Your task to perform on an android device: Open Youtube and go to the subscriptions tab Image 0: 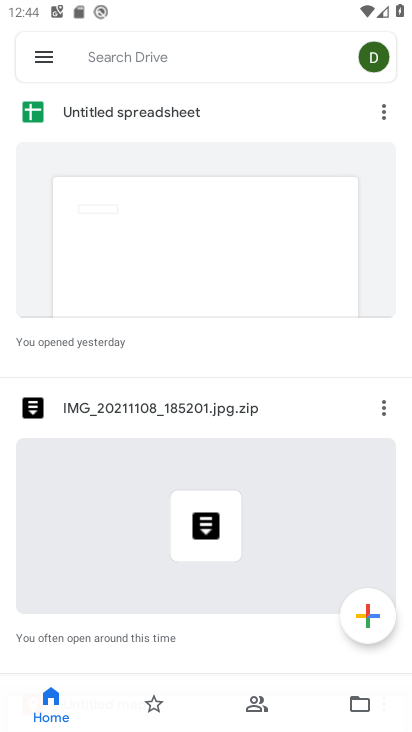
Step 0: press home button
Your task to perform on an android device: Open Youtube and go to the subscriptions tab Image 1: 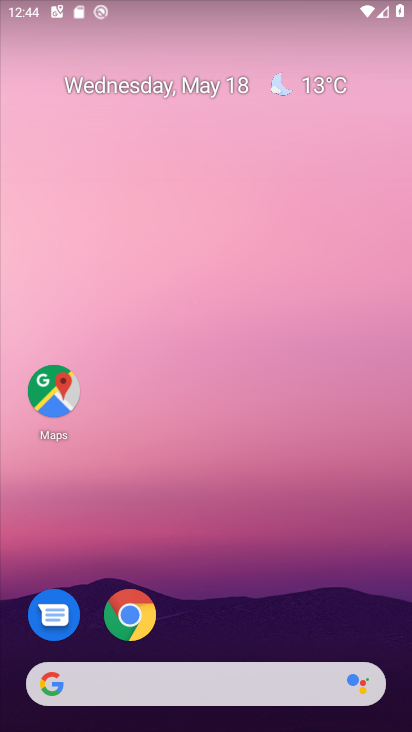
Step 1: drag from (398, 667) to (385, 240)
Your task to perform on an android device: Open Youtube and go to the subscriptions tab Image 2: 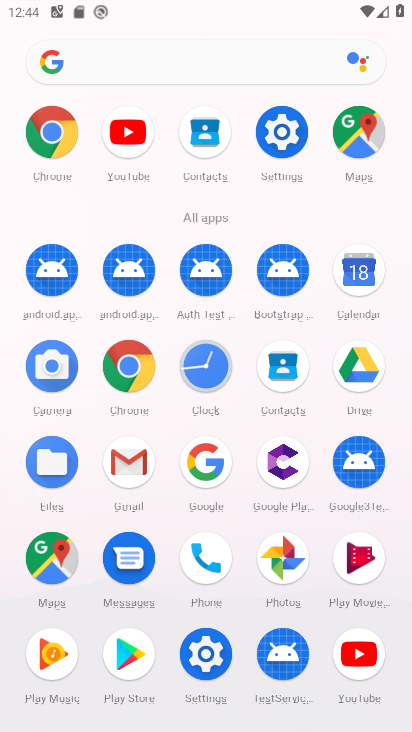
Step 2: click (347, 649)
Your task to perform on an android device: Open Youtube and go to the subscriptions tab Image 3: 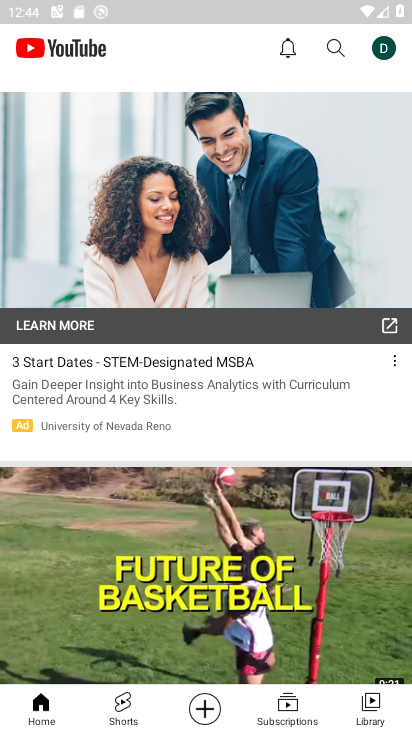
Step 3: click (289, 702)
Your task to perform on an android device: Open Youtube and go to the subscriptions tab Image 4: 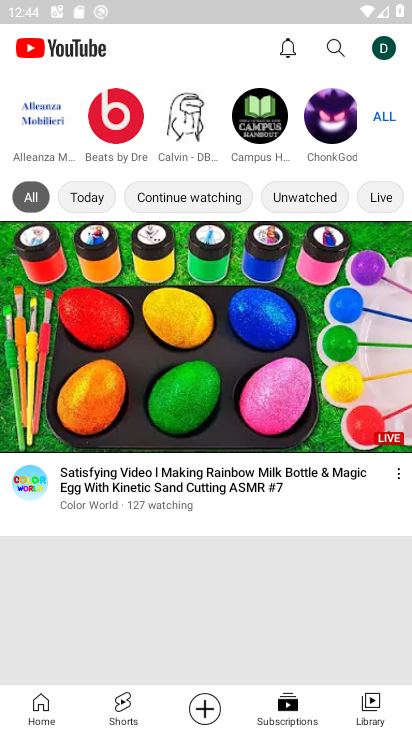
Step 4: task complete